Your task to perform on an android device: Open battery settings Image 0: 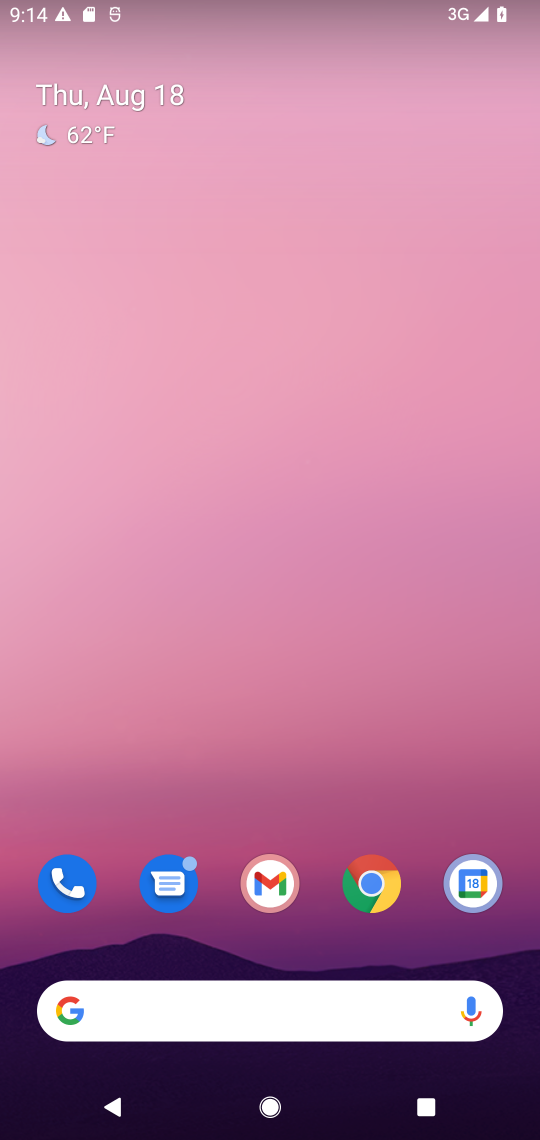
Step 0: drag from (29, 1119) to (222, 549)
Your task to perform on an android device: Open battery settings Image 1: 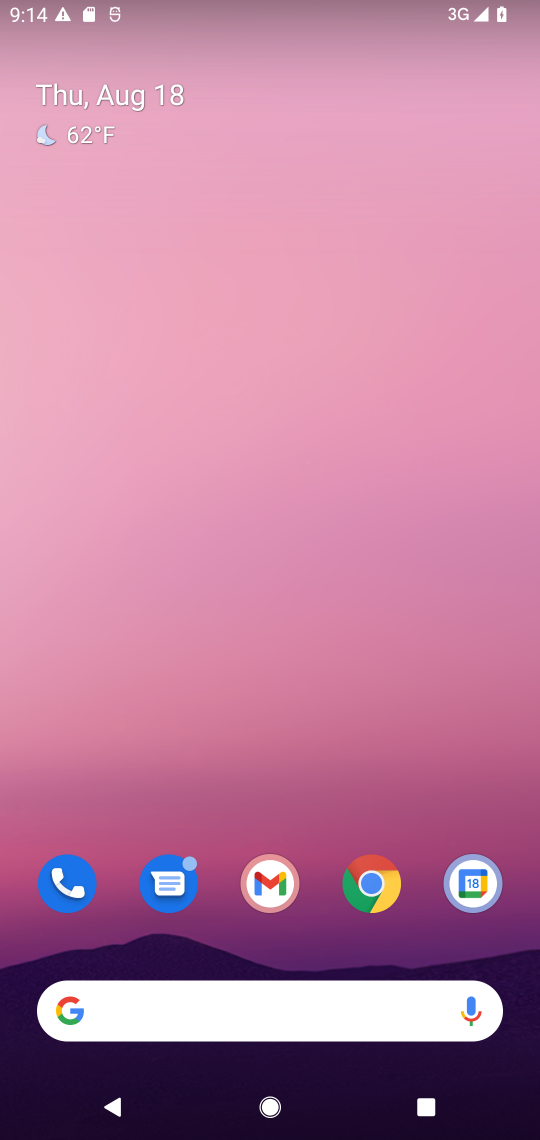
Step 1: drag from (42, 1077) to (285, 332)
Your task to perform on an android device: Open battery settings Image 2: 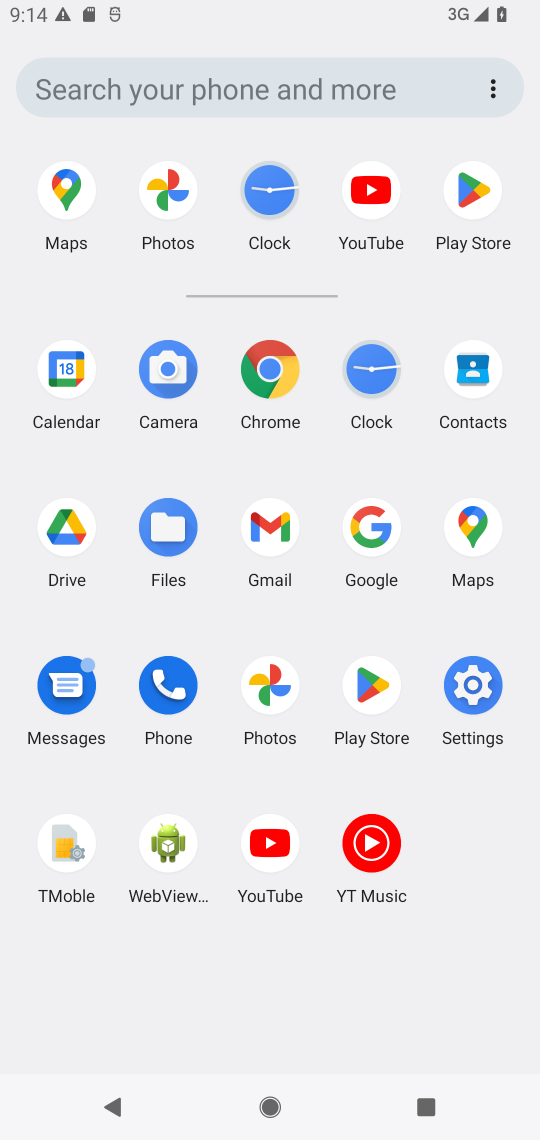
Step 2: click (484, 700)
Your task to perform on an android device: Open battery settings Image 3: 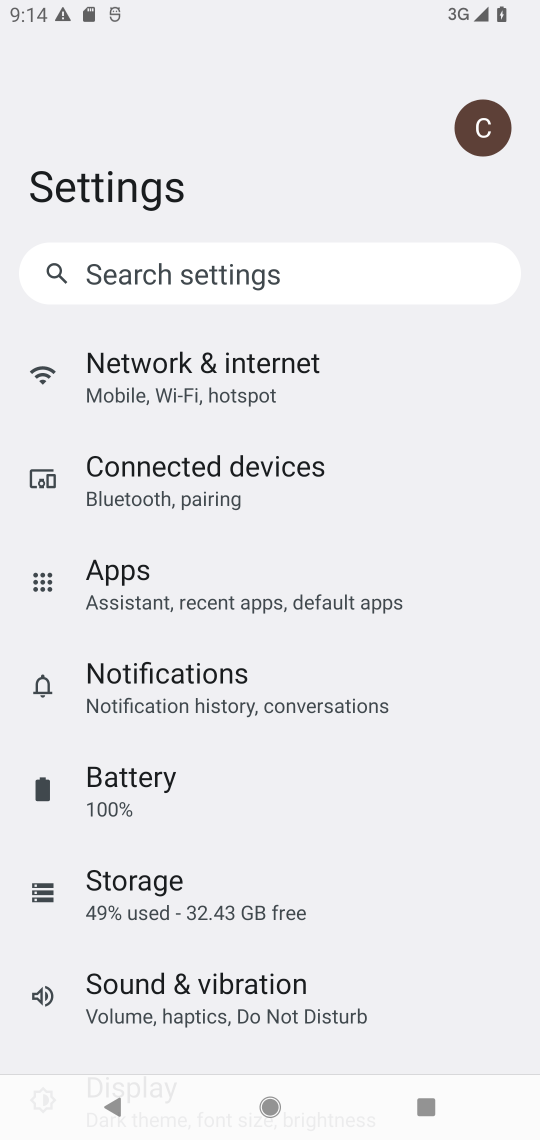
Step 3: click (144, 796)
Your task to perform on an android device: Open battery settings Image 4: 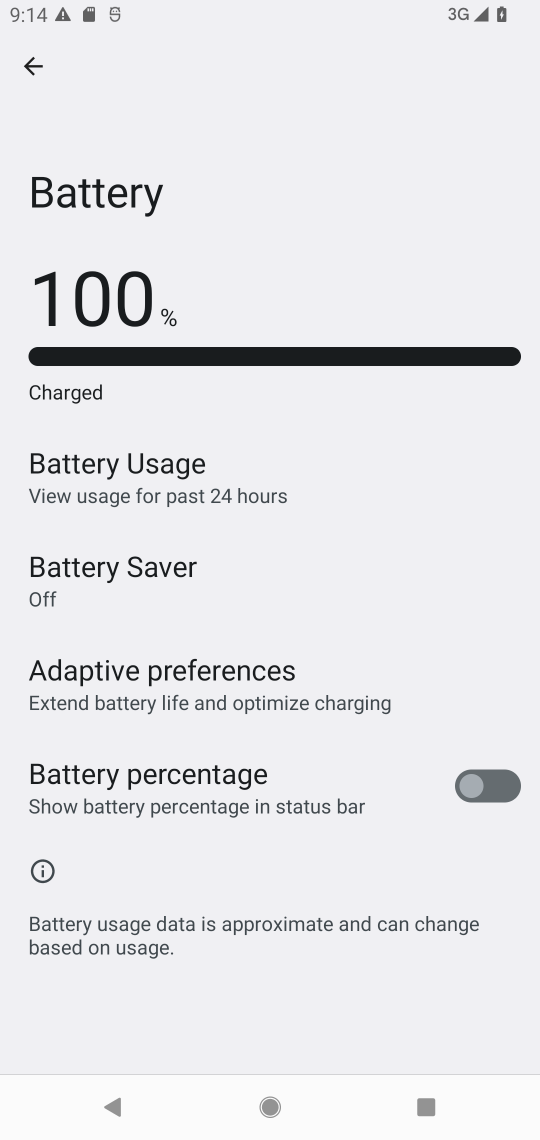
Step 4: task complete